Your task to perform on an android device: Clear the shopping cart on amazon.com. Search for "macbook pro" on amazon.com, select the first entry, and add it to the cart. Image 0: 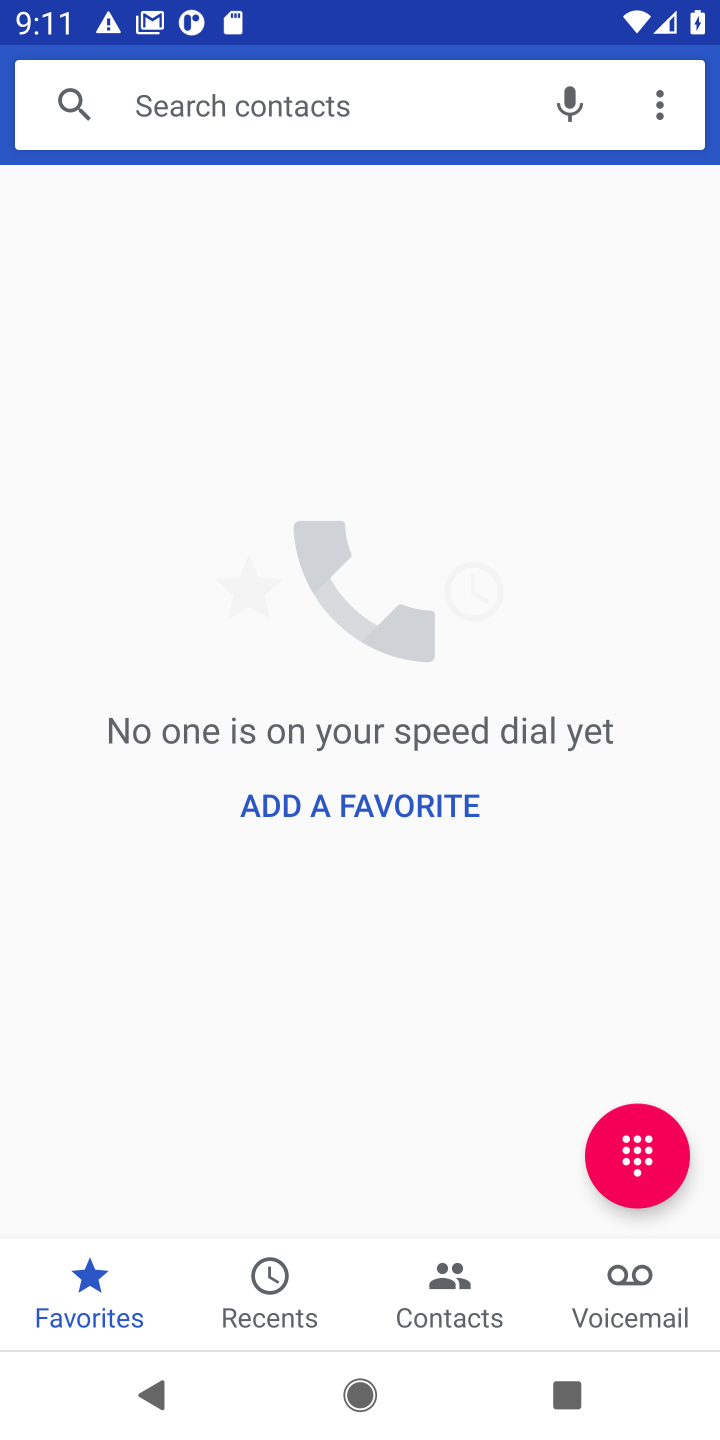
Step 0: press home button
Your task to perform on an android device: Clear the shopping cart on amazon.com. Search for "macbook pro" on amazon.com, select the first entry, and add it to the cart. Image 1: 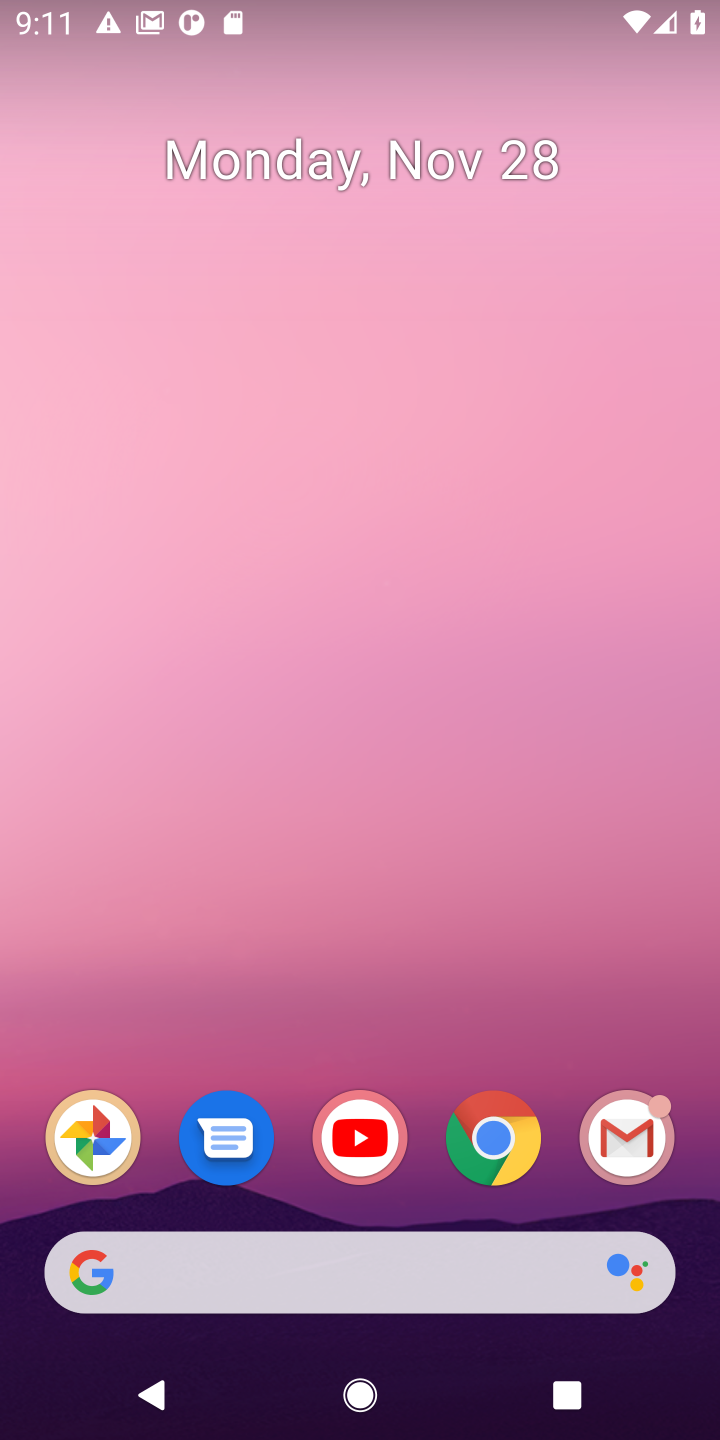
Step 1: click (502, 1135)
Your task to perform on an android device: Clear the shopping cart on amazon.com. Search for "macbook pro" on amazon.com, select the first entry, and add it to the cart. Image 2: 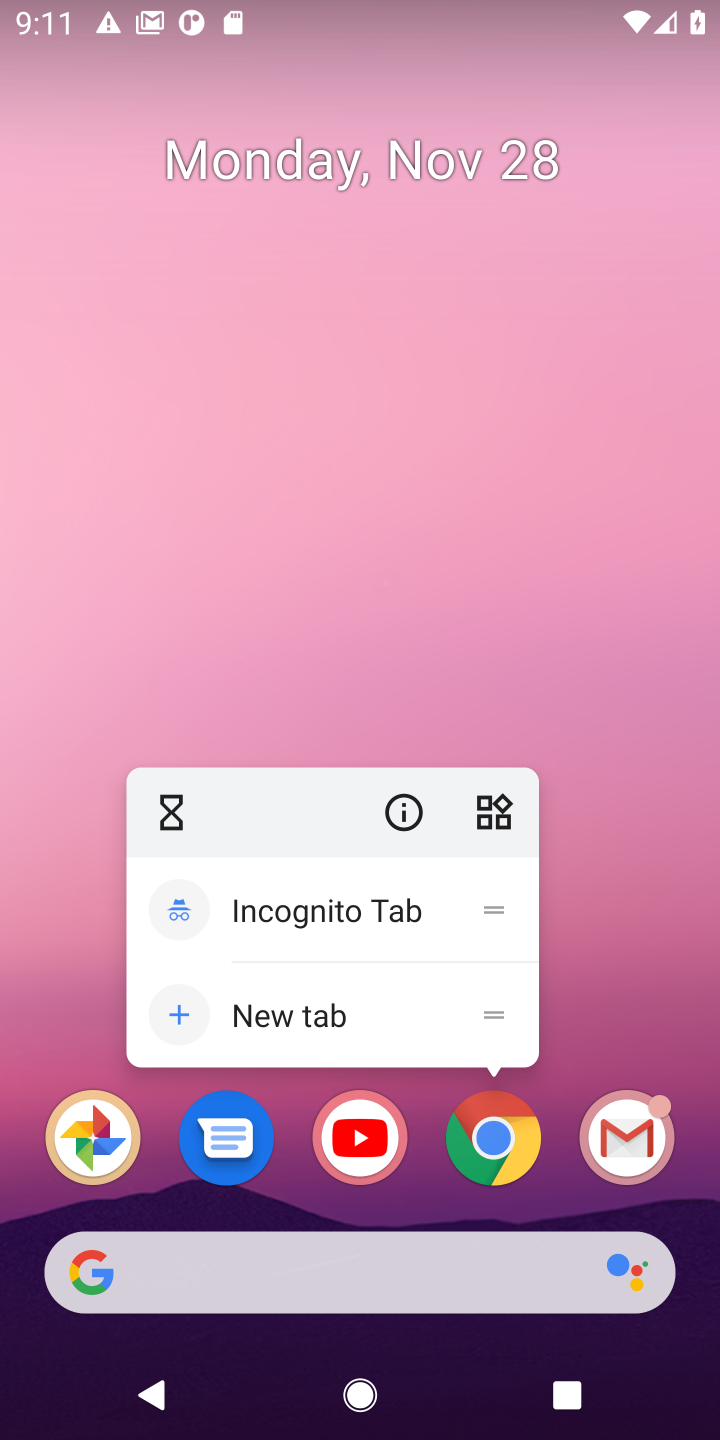
Step 2: click (502, 1146)
Your task to perform on an android device: Clear the shopping cart on amazon.com. Search for "macbook pro" on amazon.com, select the first entry, and add it to the cart. Image 3: 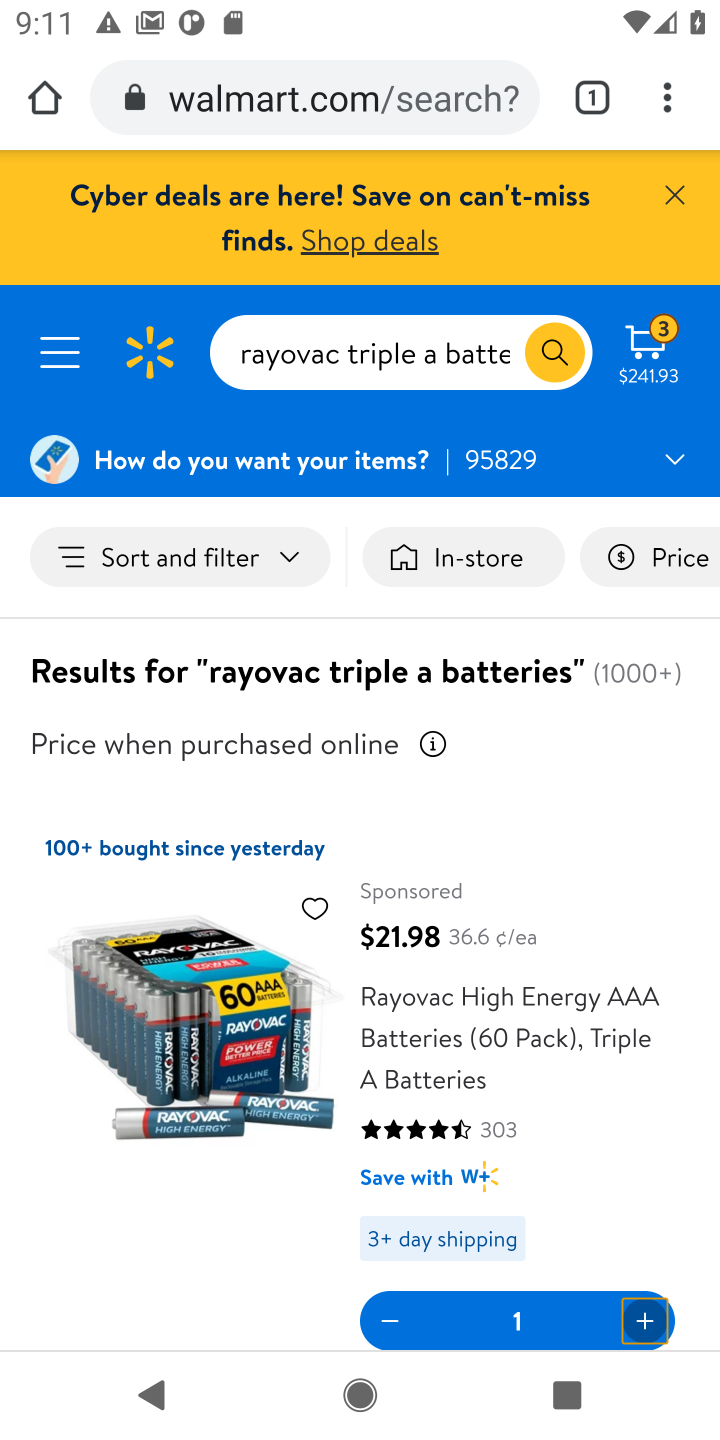
Step 3: click (304, 105)
Your task to perform on an android device: Clear the shopping cart on amazon.com. Search for "macbook pro" on amazon.com, select the first entry, and add it to the cart. Image 4: 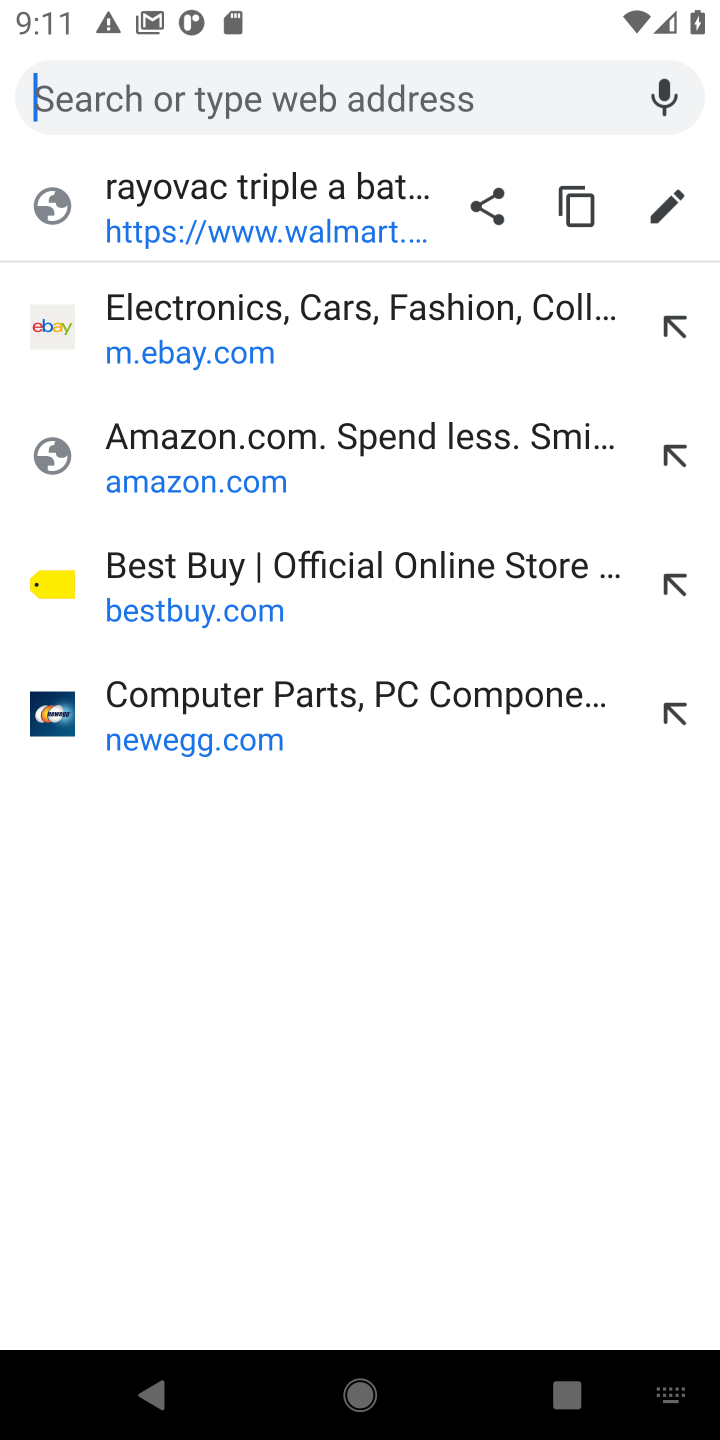
Step 4: click (175, 454)
Your task to perform on an android device: Clear the shopping cart on amazon.com. Search for "macbook pro" on amazon.com, select the first entry, and add it to the cart. Image 5: 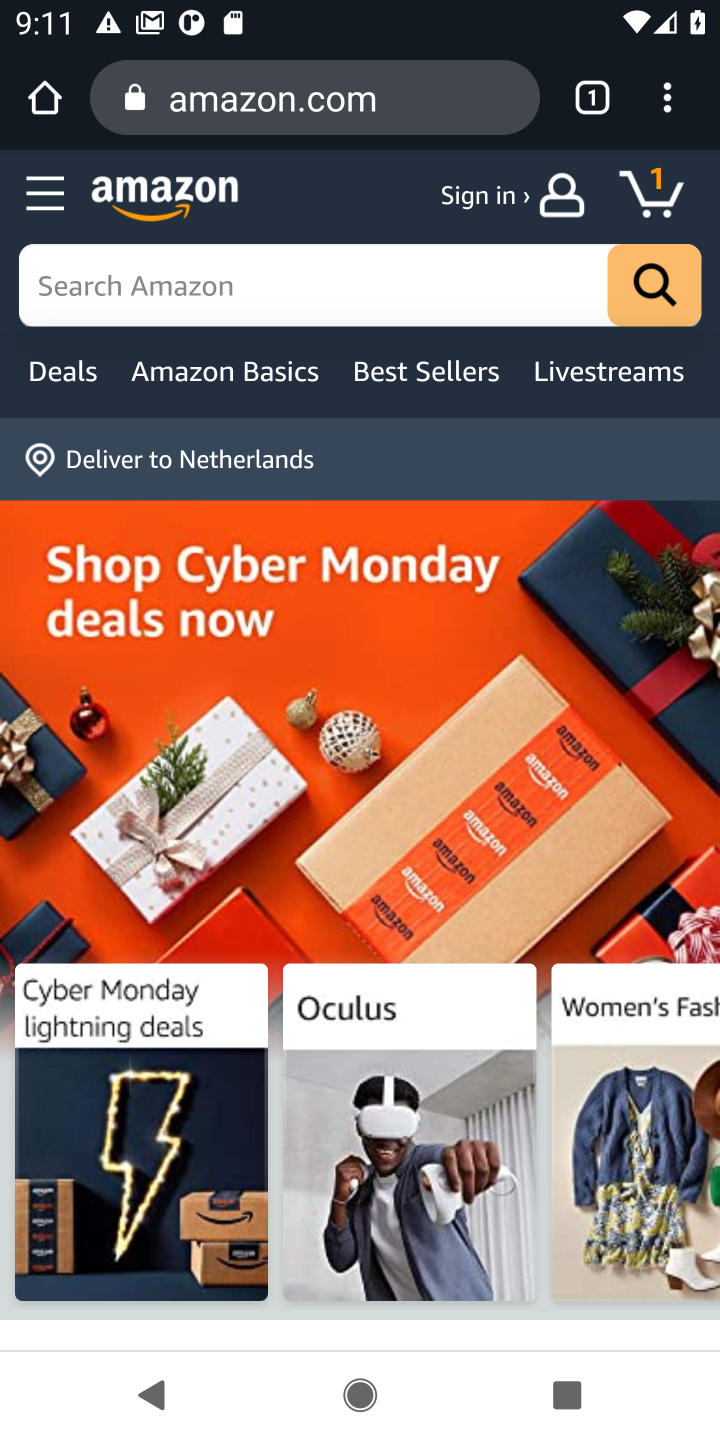
Step 5: click (661, 210)
Your task to perform on an android device: Clear the shopping cart on amazon.com. Search for "macbook pro" on amazon.com, select the first entry, and add it to the cart. Image 6: 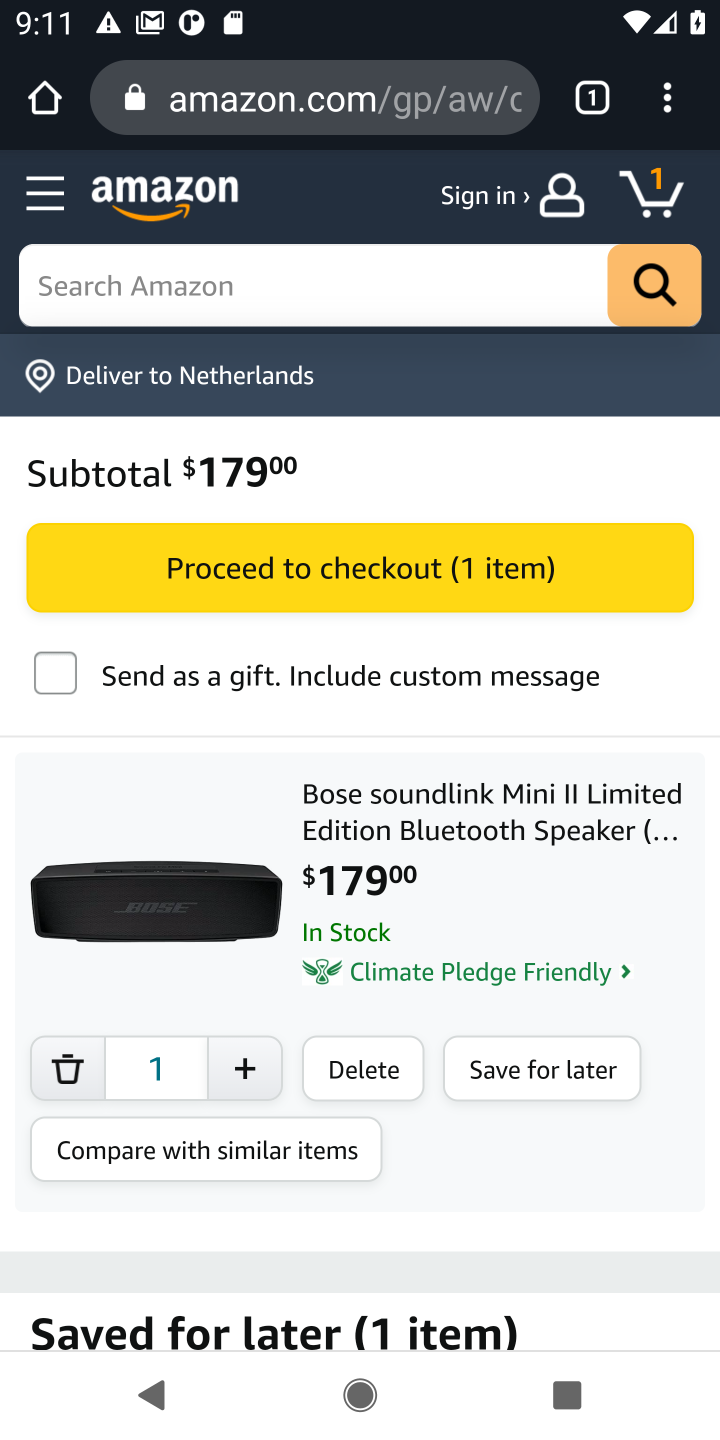
Step 6: click (66, 1064)
Your task to perform on an android device: Clear the shopping cart on amazon.com. Search for "macbook pro" on amazon.com, select the first entry, and add it to the cart. Image 7: 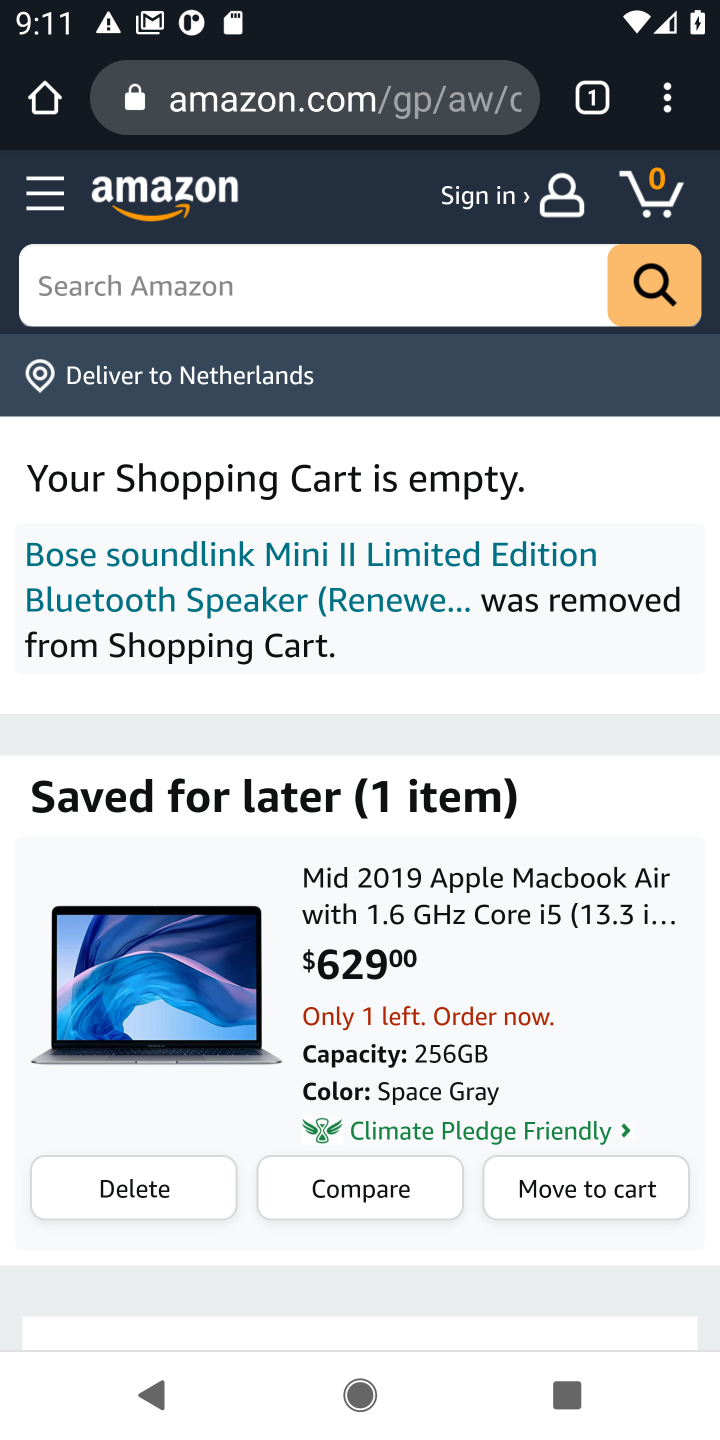
Step 7: click (188, 292)
Your task to perform on an android device: Clear the shopping cart on amazon.com. Search for "macbook pro" on amazon.com, select the first entry, and add it to the cart. Image 8: 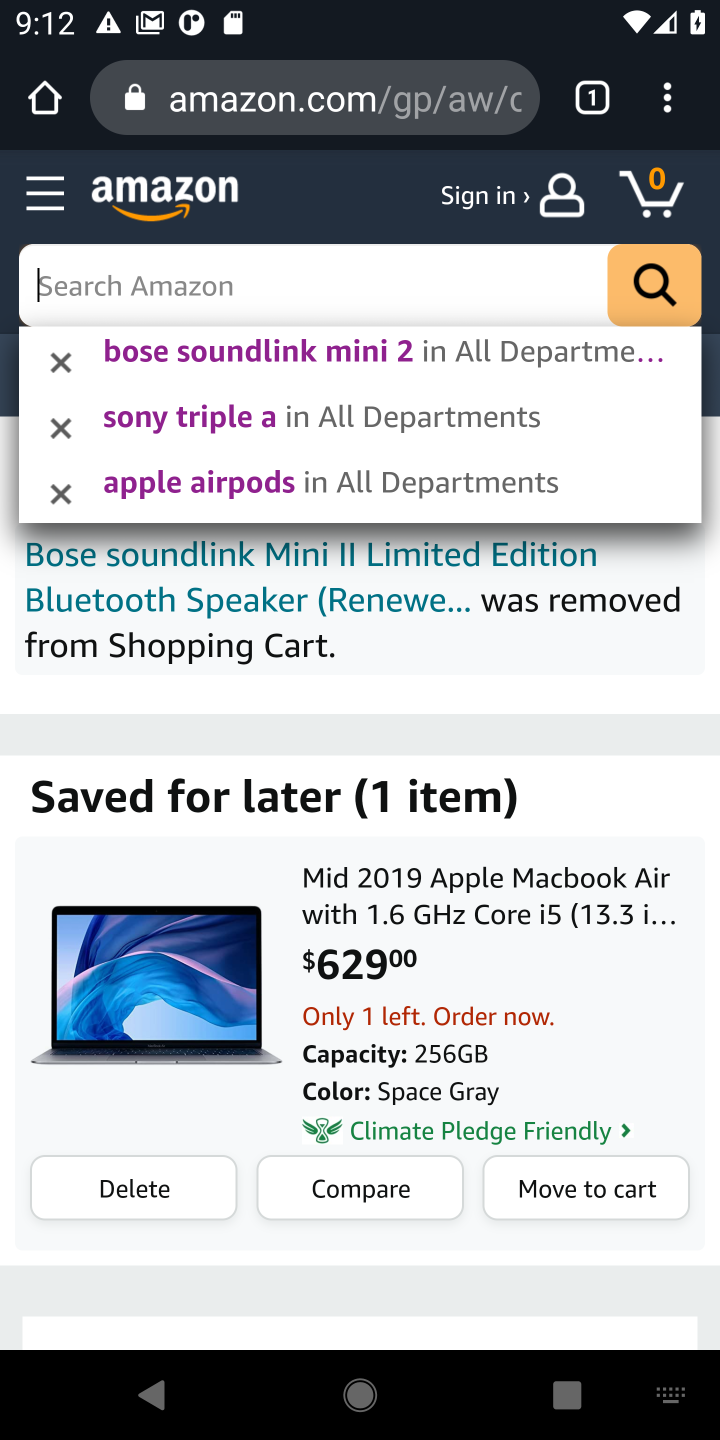
Step 8: type "macbook pro"
Your task to perform on an android device: Clear the shopping cart on amazon.com. Search for "macbook pro" on amazon.com, select the first entry, and add it to the cart. Image 9: 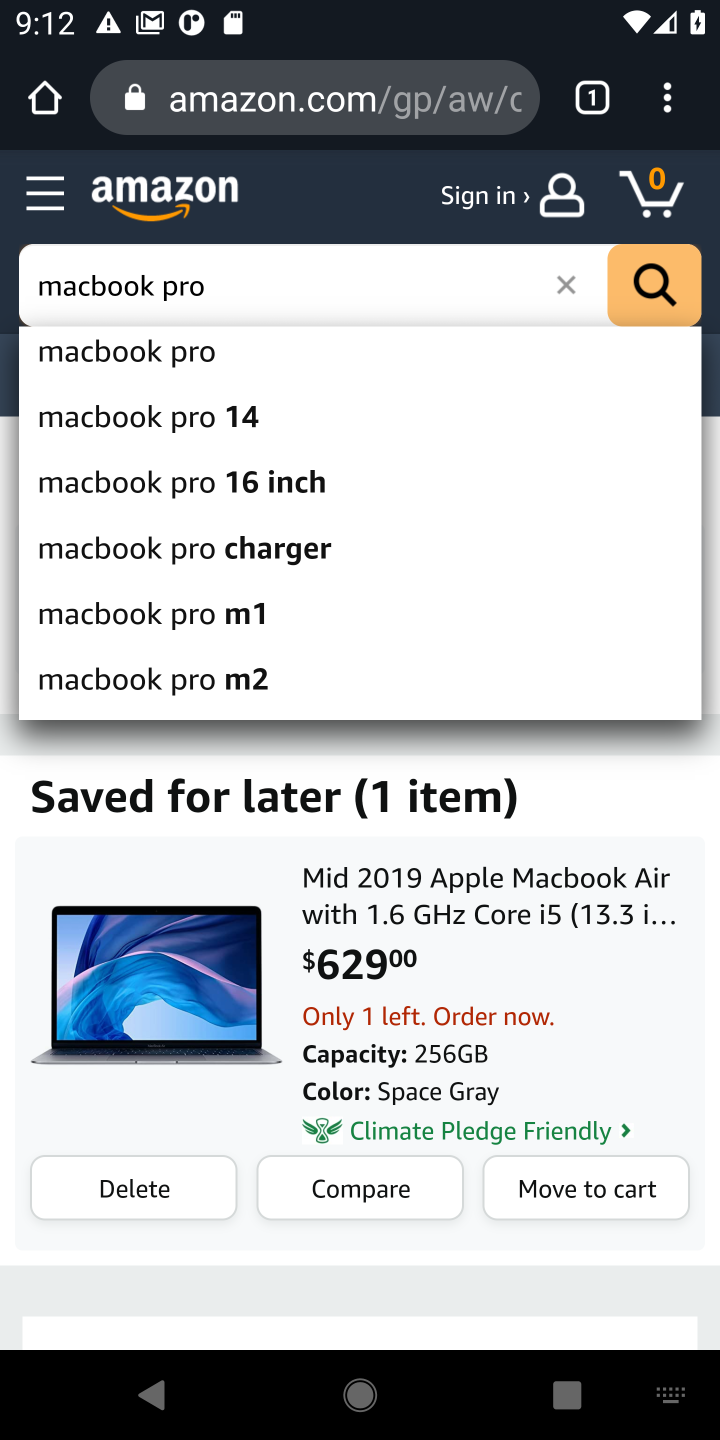
Step 9: click (176, 350)
Your task to perform on an android device: Clear the shopping cart on amazon.com. Search for "macbook pro" on amazon.com, select the first entry, and add it to the cart. Image 10: 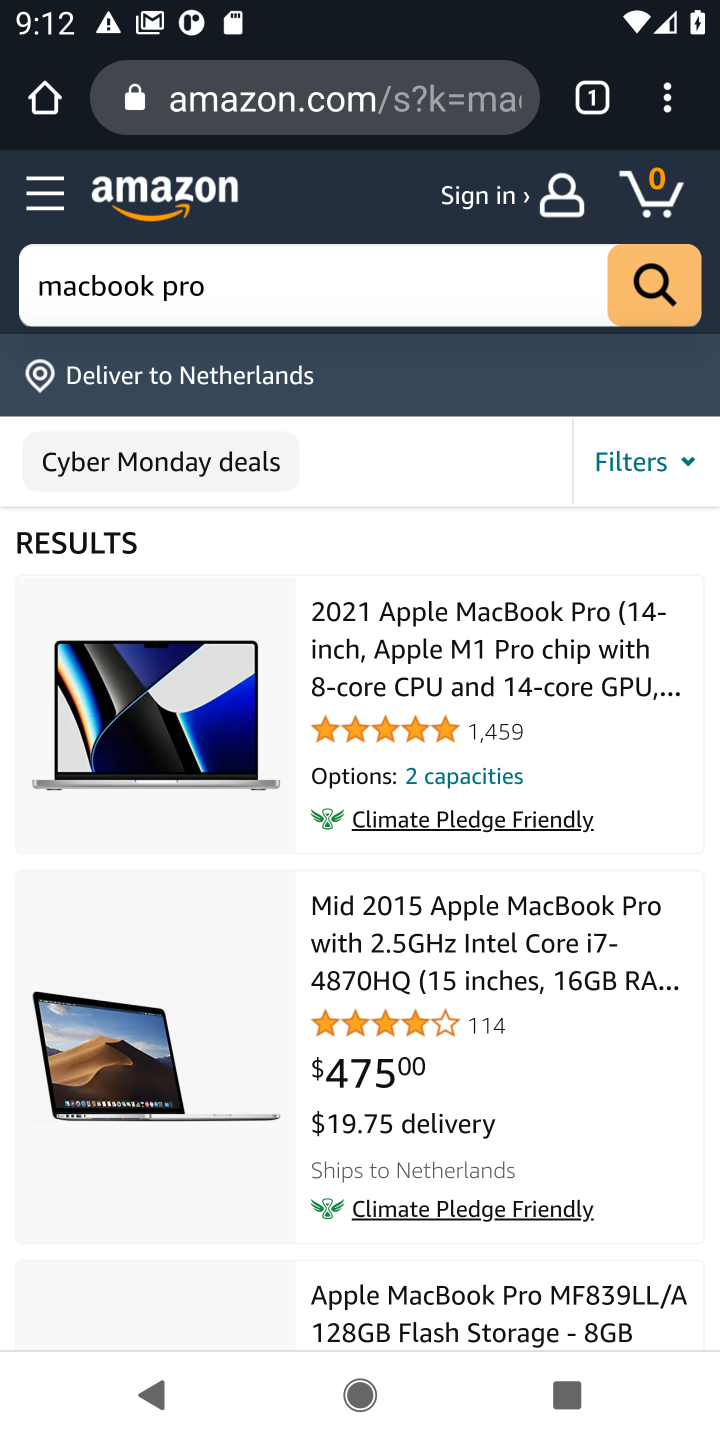
Step 10: click (403, 679)
Your task to perform on an android device: Clear the shopping cart on amazon.com. Search for "macbook pro" on amazon.com, select the first entry, and add it to the cart. Image 11: 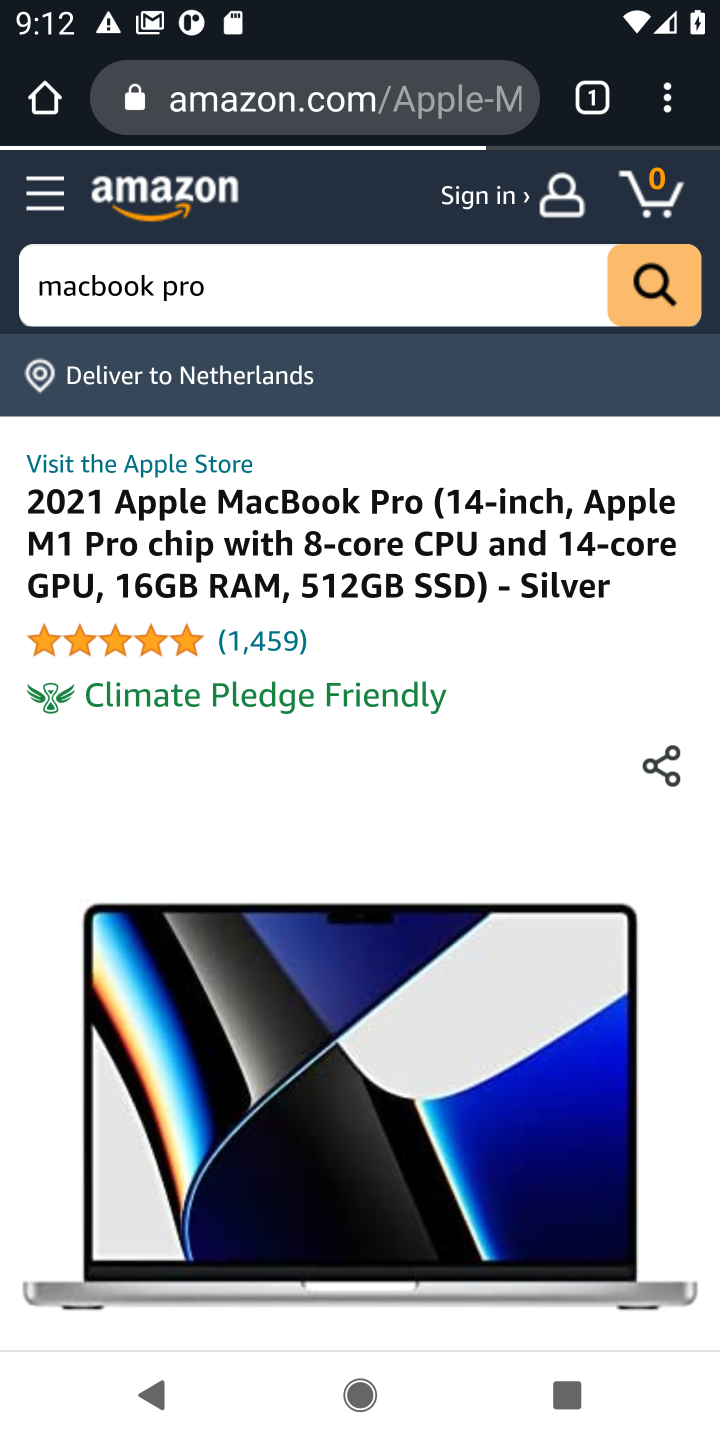
Step 11: task complete